Your task to perform on an android device: Open the phone app and click the voicemail tab. Image 0: 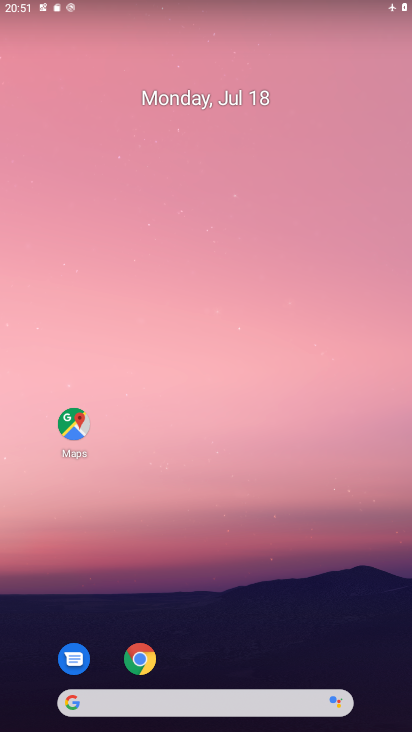
Step 0: drag from (266, 671) to (106, 240)
Your task to perform on an android device: Open the phone app and click the voicemail tab. Image 1: 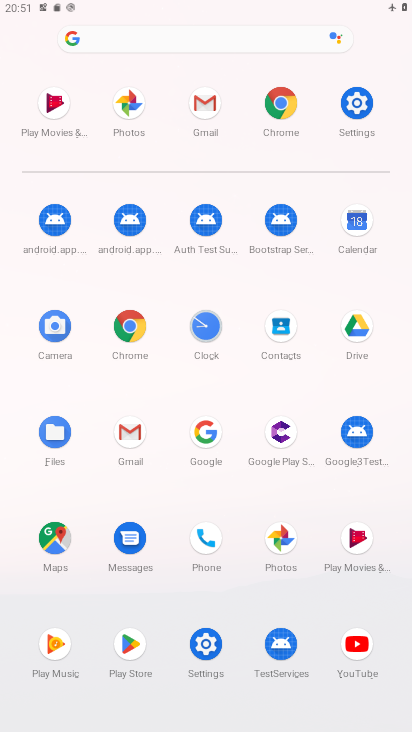
Step 1: click (198, 543)
Your task to perform on an android device: Open the phone app and click the voicemail tab. Image 2: 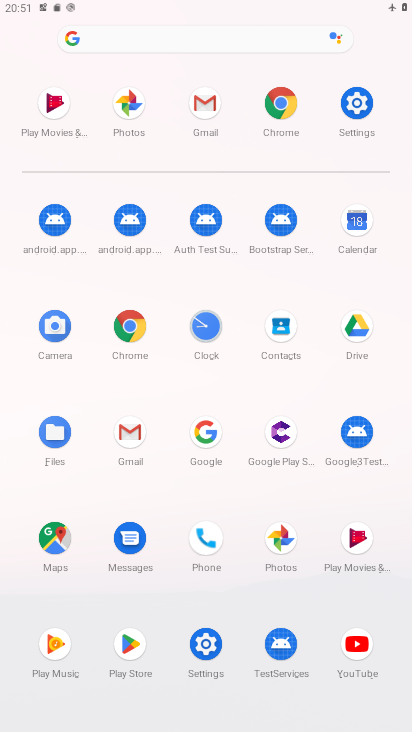
Step 2: click (201, 546)
Your task to perform on an android device: Open the phone app and click the voicemail tab. Image 3: 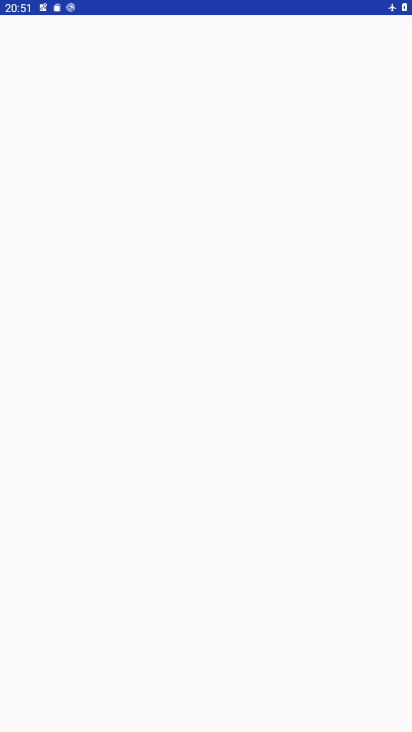
Step 3: click (202, 547)
Your task to perform on an android device: Open the phone app and click the voicemail tab. Image 4: 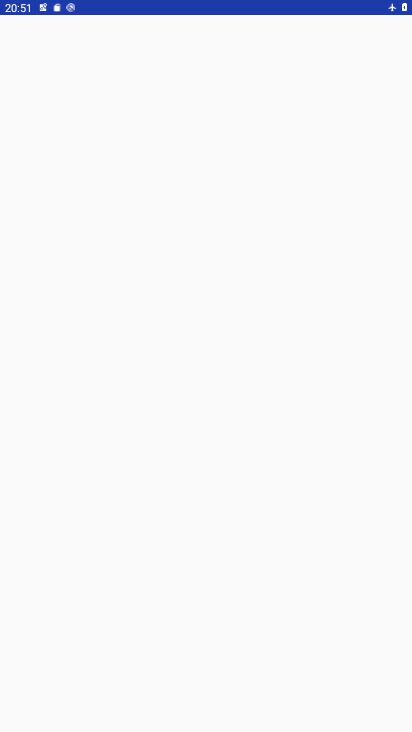
Step 4: click (202, 547)
Your task to perform on an android device: Open the phone app and click the voicemail tab. Image 5: 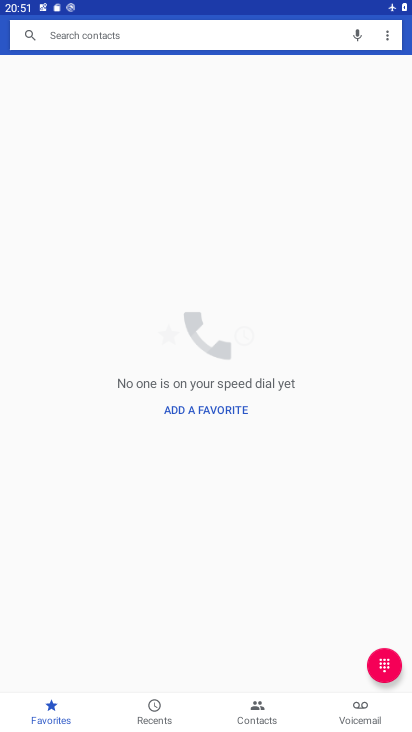
Step 5: click (366, 703)
Your task to perform on an android device: Open the phone app and click the voicemail tab. Image 6: 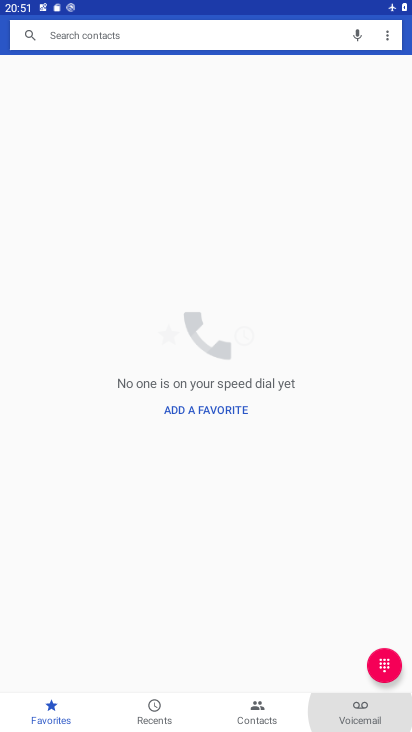
Step 6: click (367, 706)
Your task to perform on an android device: Open the phone app and click the voicemail tab. Image 7: 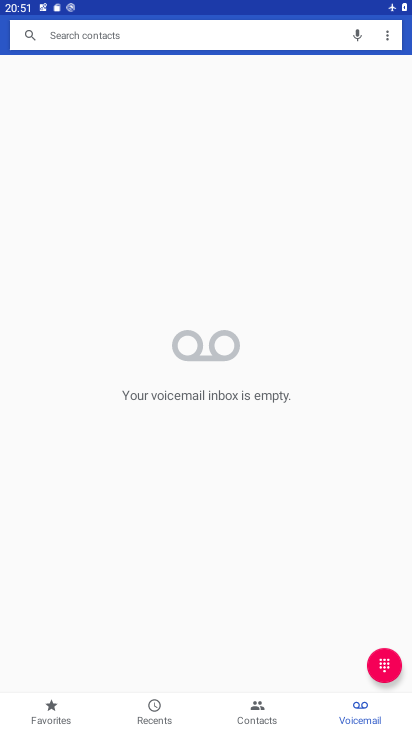
Step 7: task complete